Your task to perform on an android device: open a bookmark in the chrome app Image 0: 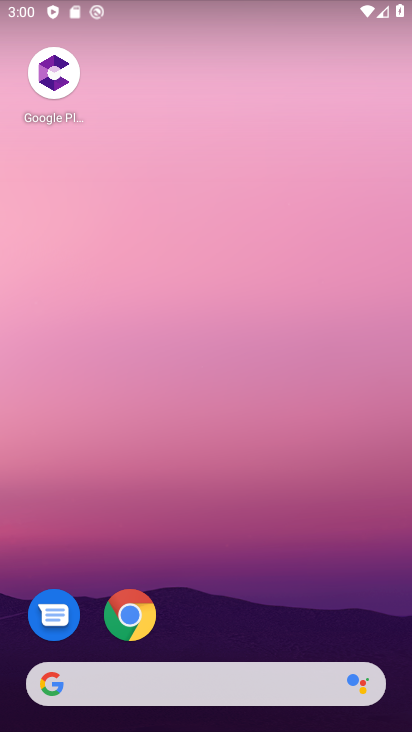
Step 0: click (142, 605)
Your task to perform on an android device: open a bookmark in the chrome app Image 1: 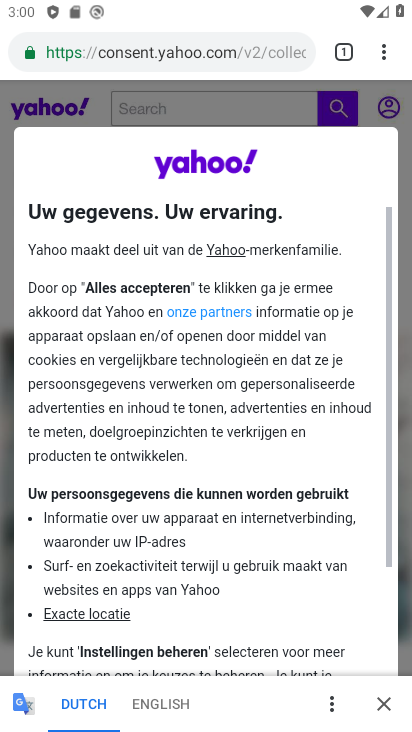
Step 1: click (383, 43)
Your task to perform on an android device: open a bookmark in the chrome app Image 2: 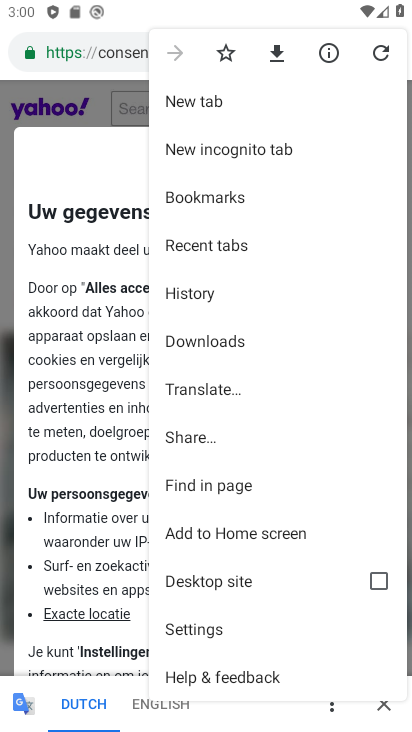
Step 2: click (228, 199)
Your task to perform on an android device: open a bookmark in the chrome app Image 3: 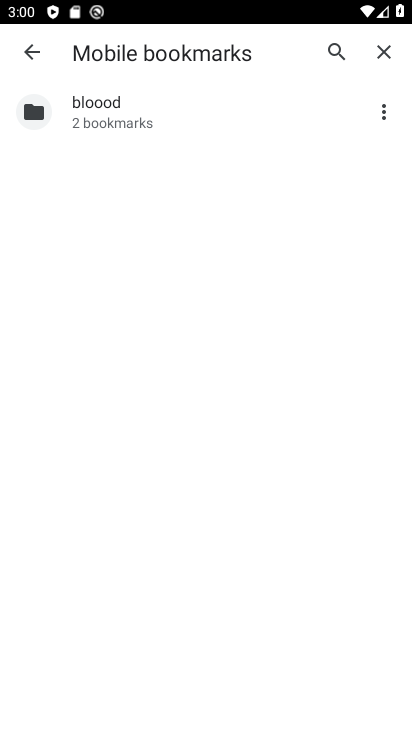
Step 3: click (146, 124)
Your task to perform on an android device: open a bookmark in the chrome app Image 4: 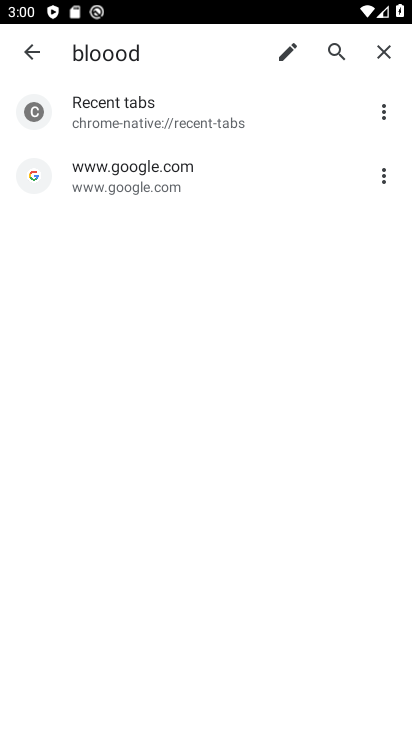
Step 4: click (149, 184)
Your task to perform on an android device: open a bookmark in the chrome app Image 5: 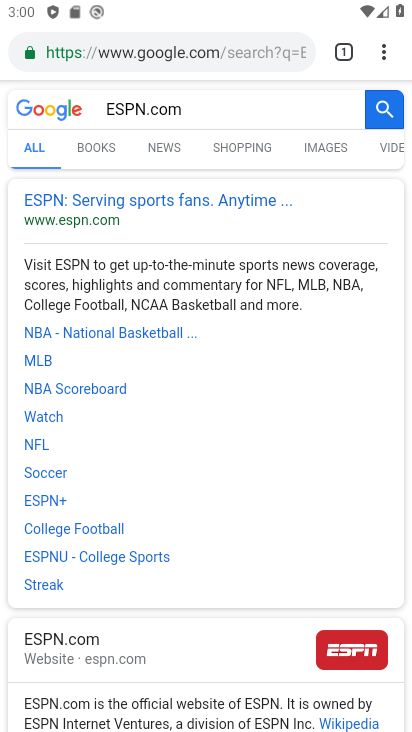
Step 5: task complete